Your task to perform on an android device: Show me popular videos on Youtube Image 0: 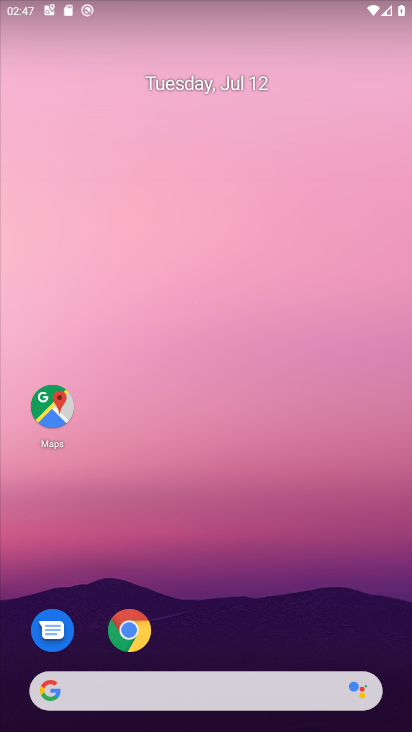
Step 0: drag from (385, 632) to (329, 187)
Your task to perform on an android device: Show me popular videos on Youtube Image 1: 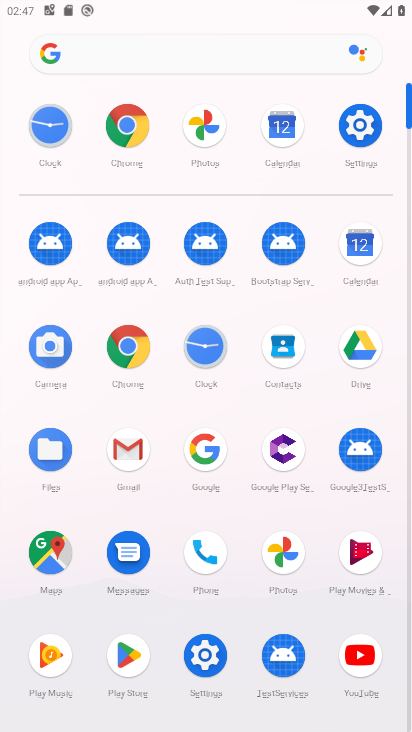
Step 1: click (357, 653)
Your task to perform on an android device: Show me popular videos on Youtube Image 2: 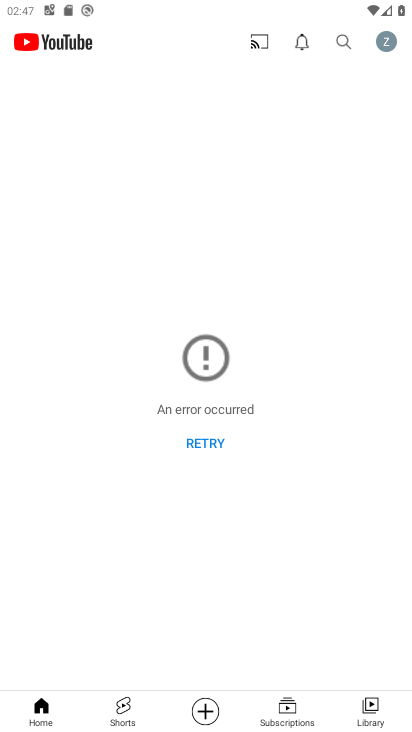
Step 2: click (124, 690)
Your task to perform on an android device: Show me popular videos on Youtube Image 3: 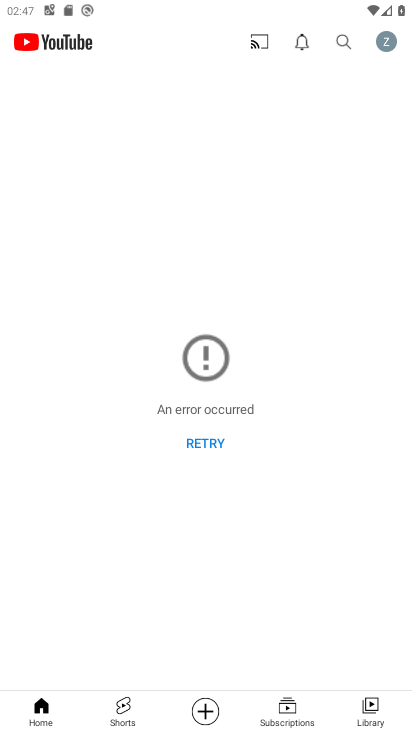
Step 3: click (208, 440)
Your task to perform on an android device: Show me popular videos on Youtube Image 4: 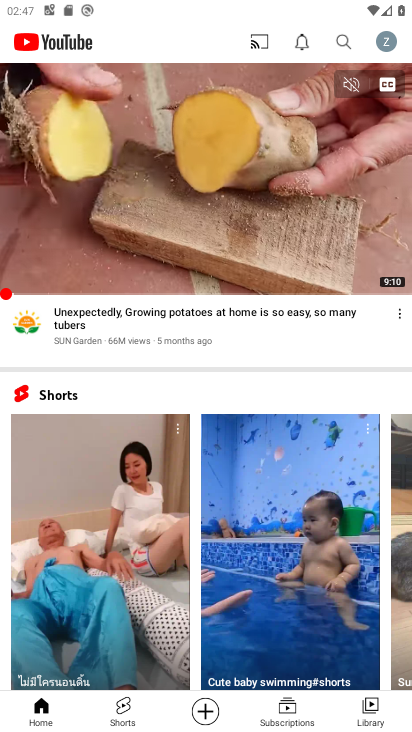
Step 4: drag from (191, 139) to (209, 509)
Your task to perform on an android device: Show me popular videos on Youtube Image 5: 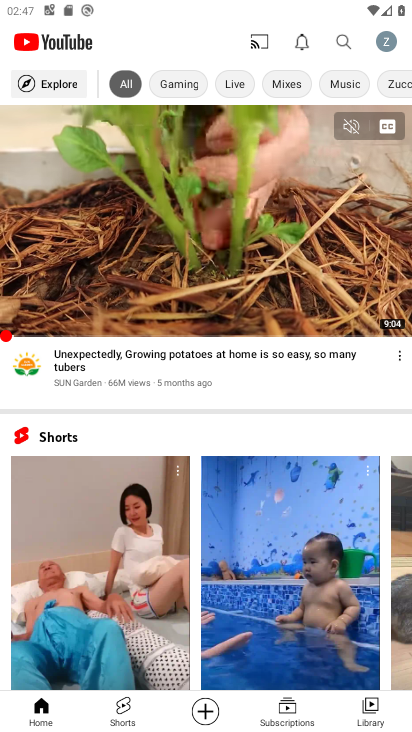
Step 5: click (32, 77)
Your task to perform on an android device: Show me popular videos on Youtube Image 6: 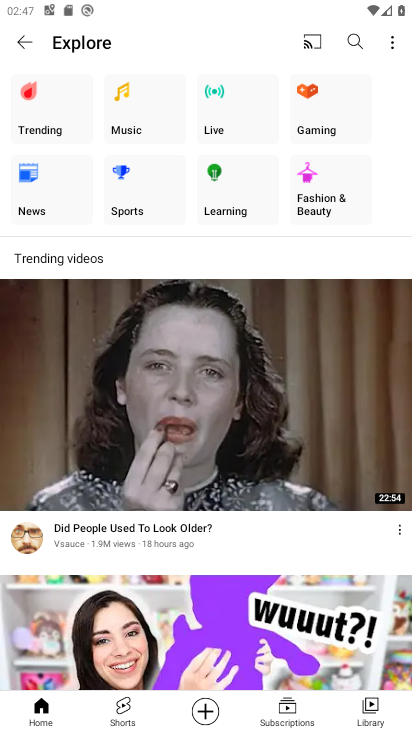
Step 6: click (38, 117)
Your task to perform on an android device: Show me popular videos on Youtube Image 7: 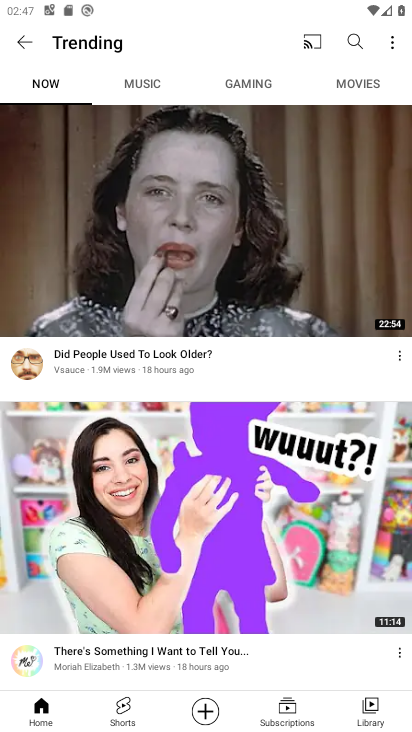
Step 7: task complete